Your task to perform on an android device: Go to eBay Image 0: 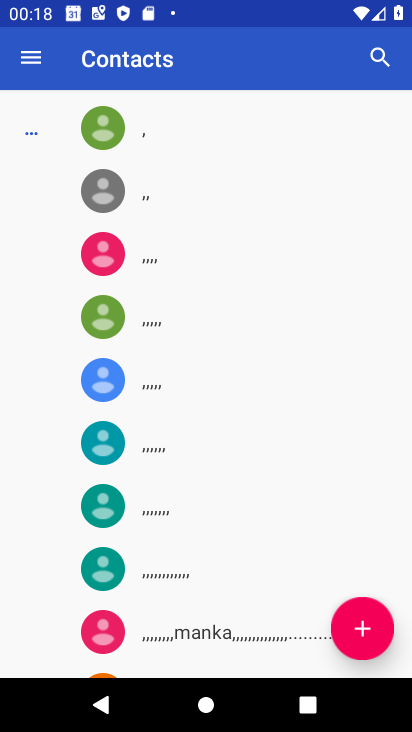
Step 0: press home button
Your task to perform on an android device: Go to eBay Image 1: 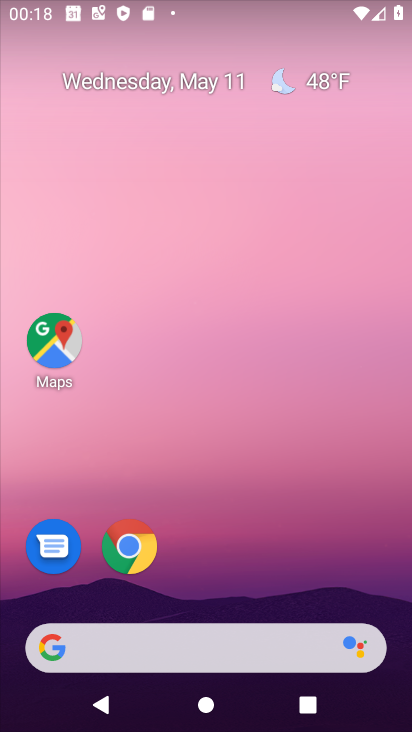
Step 1: click (116, 549)
Your task to perform on an android device: Go to eBay Image 2: 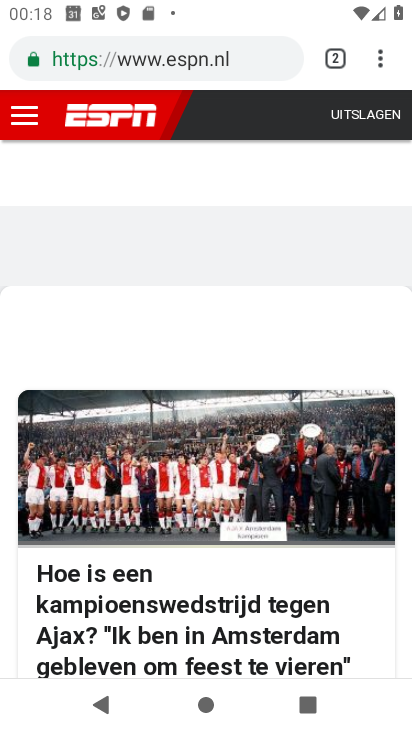
Step 2: click (341, 57)
Your task to perform on an android device: Go to eBay Image 3: 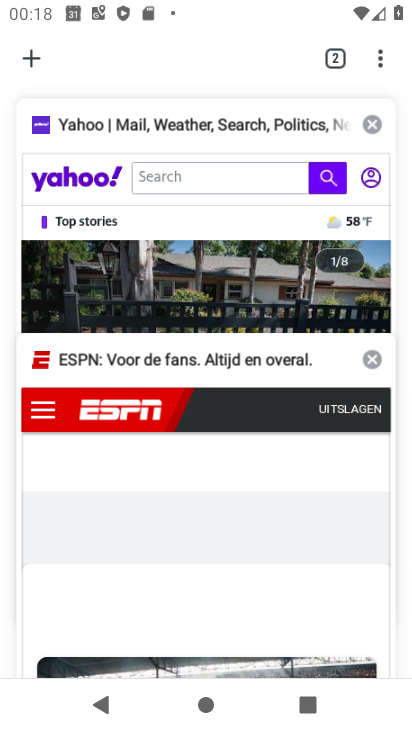
Step 3: click (42, 55)
Your task to perform on an android device: Go to eBay Image 4: 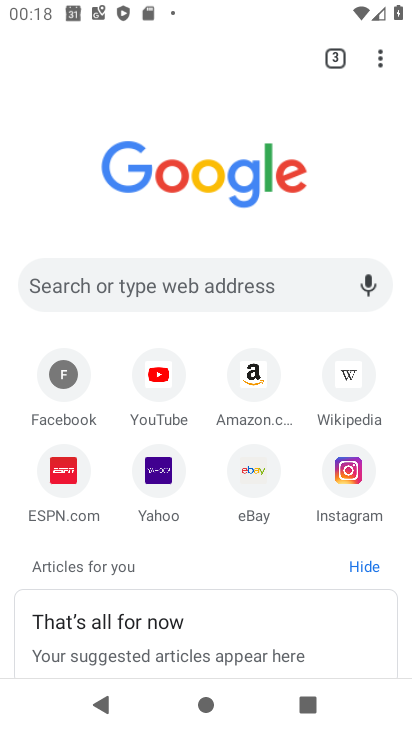
Step 4: click (256, 489)
Your task to perform on an android device: Go to eBay Image 5: 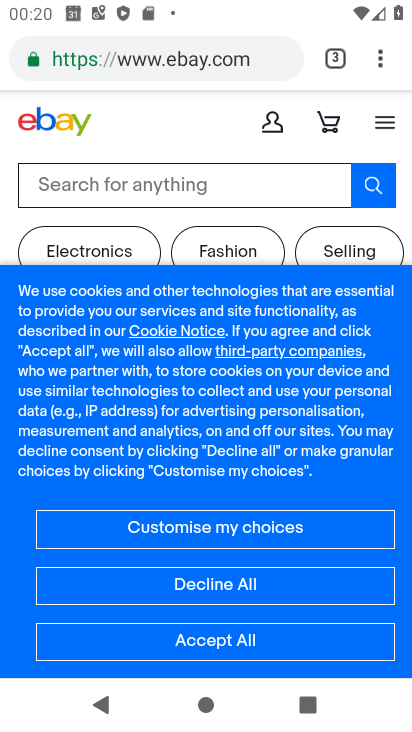
Step 5: task complete